Your task to perform on an android device: change text size in settings app Image 0: 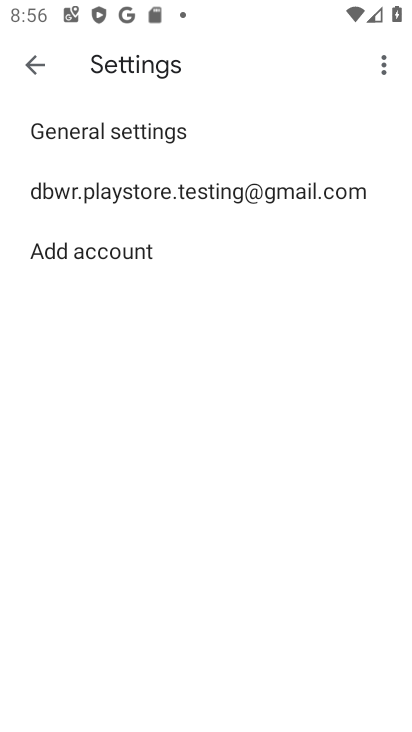
Step 0: press home button
Your task to perform on an android device: change text size in settings app Image 1: 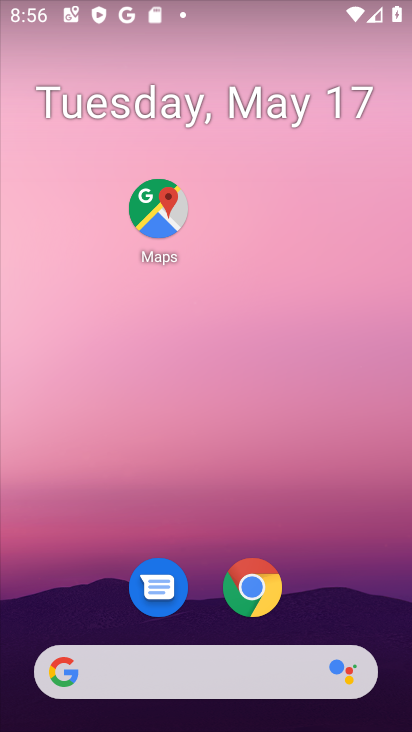
Step 1: drag from (48, 497) to (241, 149)
Your task to perform on an android device: change text size in settings app Image 2: 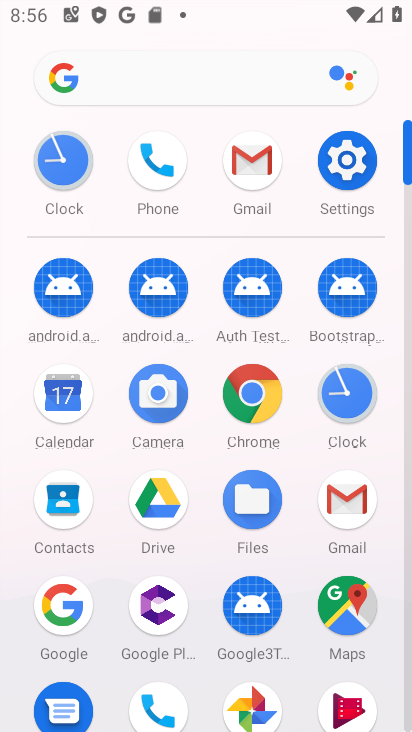
Step 2: click (347, 149)
Your task to perform on an android device: change text size in settings app Image 3: 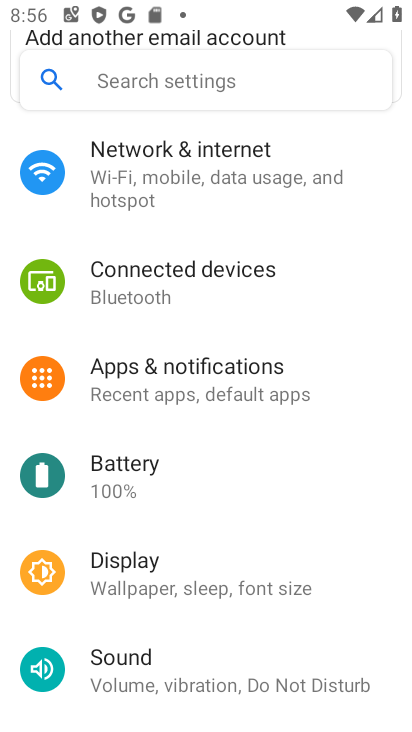
Step 3: click (173, 588)
Your task to perform on an android device: change text size in settings app Image 4: 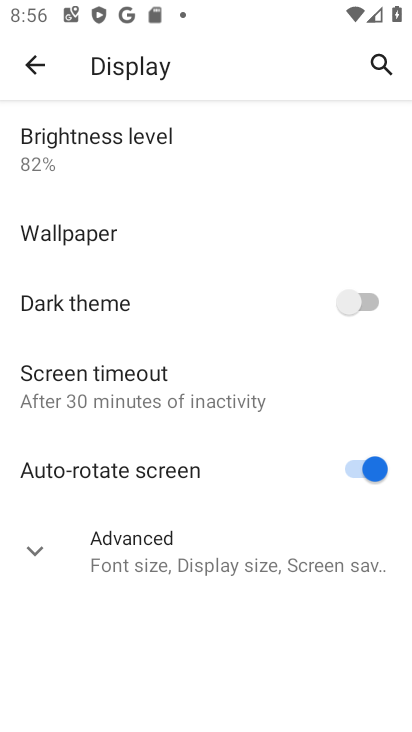
Step 4: click (149, 542)
Your task to perform on an android device: change text size in settings app Image 5: 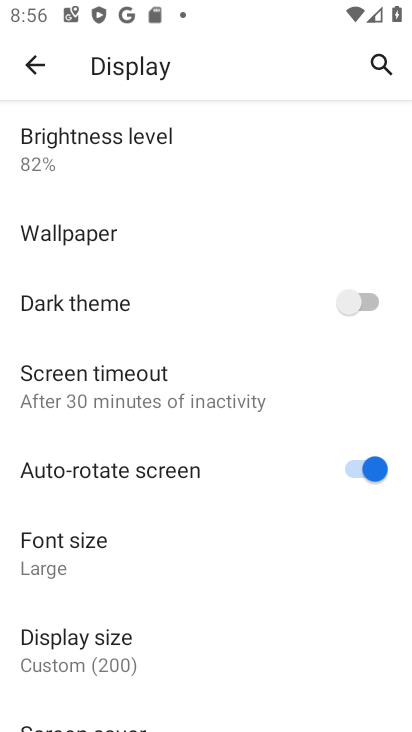
Step 5: click (90, 573)
Your task to perform on an android device: change text size in settings app Image 6: 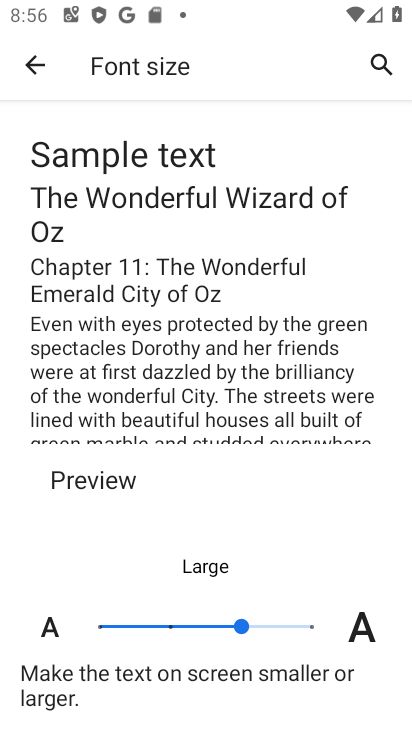
Step 6: task complete